Your task to perform on an android device: turn smart compose on in the gmail app Image 0: 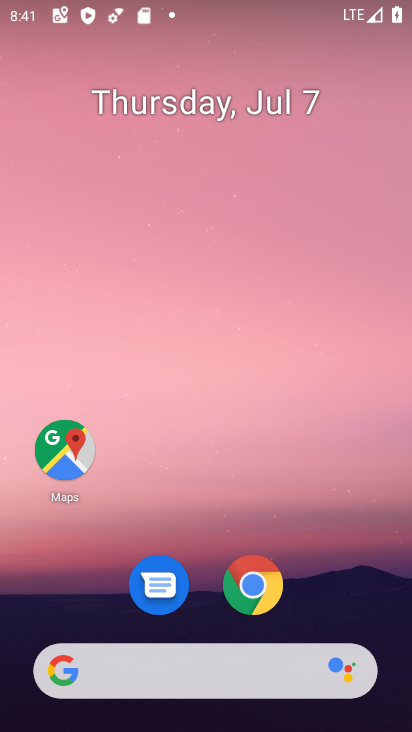
Step 0: drag from (267, 499) to (289, 32)
Your task to perform on an android device: turn smart compose on in the gmail app Image 1: 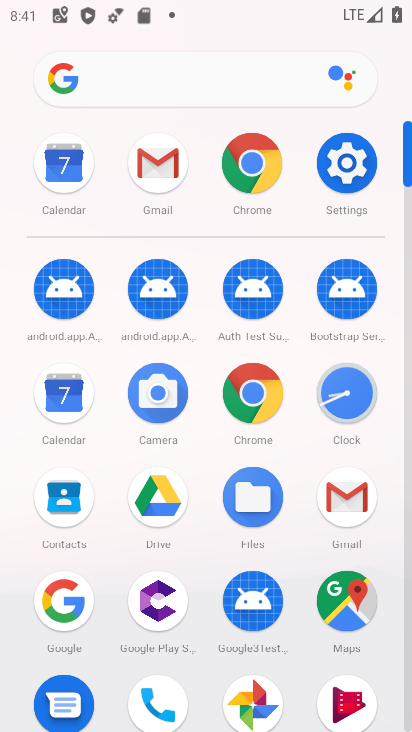
Step 1: click (168, 172)
Your task to perform on an android device: turn smart compose on in the gmail app Image 2: 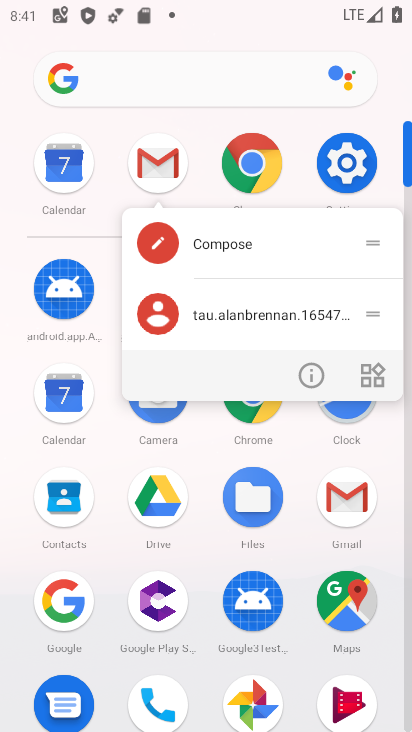
Step 2: click (165, 150)
Your task to perform on an android device: turn smart compose on in the gmail app Image 3: 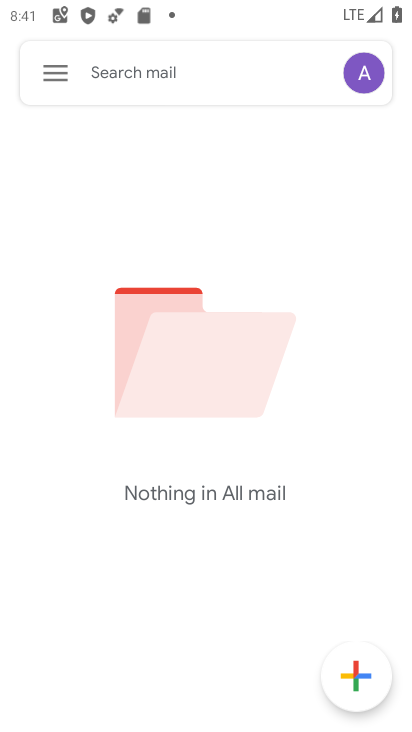
Step 3: click (62, 67)
Your task to perform on an android device: turn smart compose on in the gmail app Image 4: 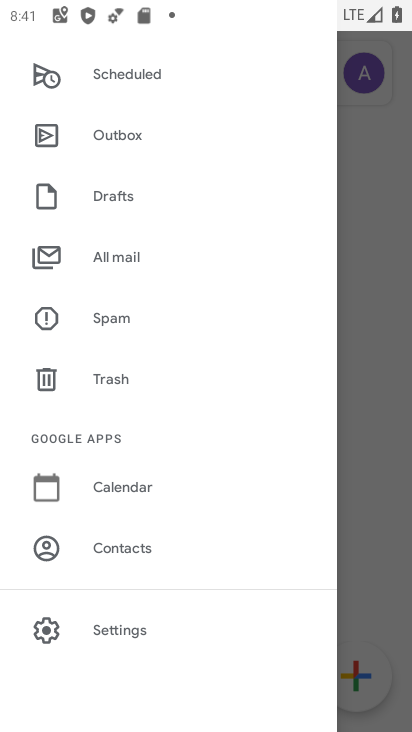
Step 4: click (111, 629)
Your task to perform on an android device: turn smart compose on in the gmail app Image 5: 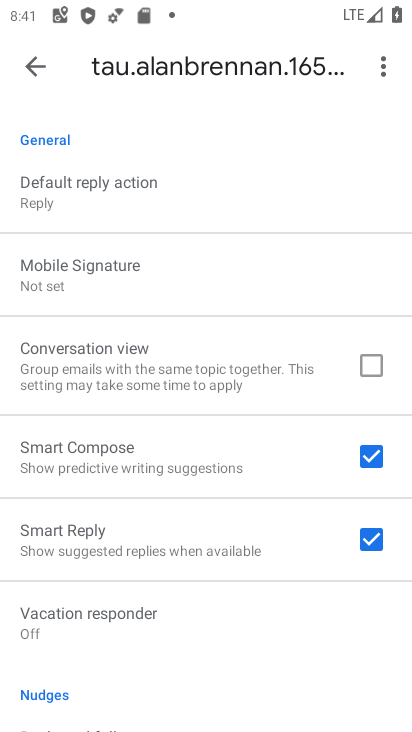
Step 5: task complete